Your task to perform on an android device: Go to network settings Image 0: 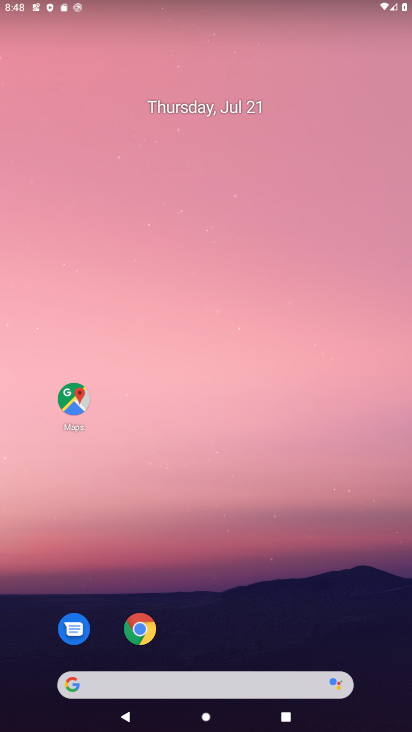
Step 0: drag from (179, 5) to (139, 421)
Your task to perform on an android device: Go to network settings Image 1: 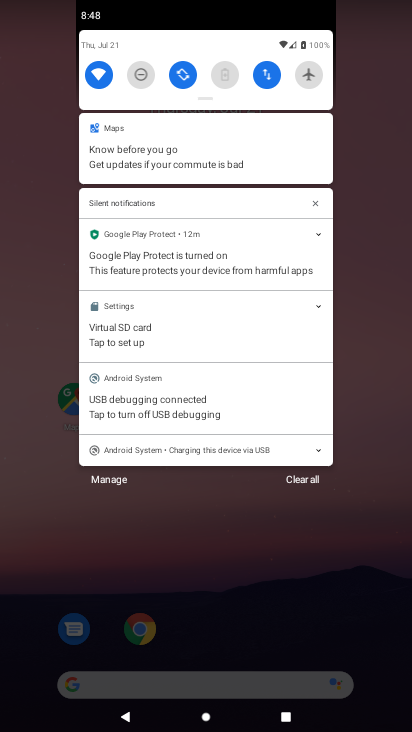
Step 1: click (270, 81)
Your task to perform on an android device: Go to network settings Image 2: 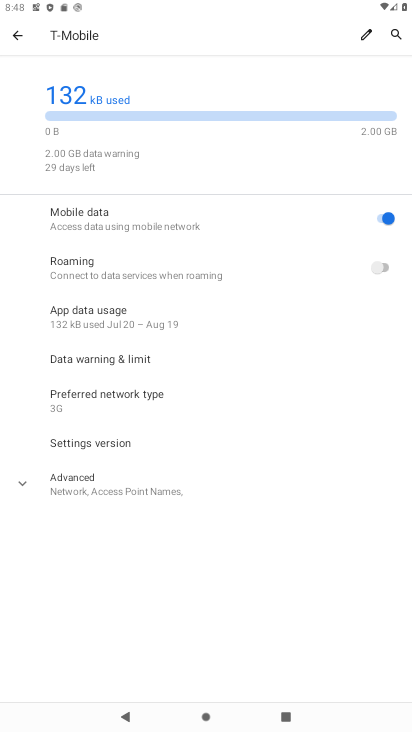
Step 2: task complete